Your task to perform on an android device: toggle show notifications on the lock screen Image 0: 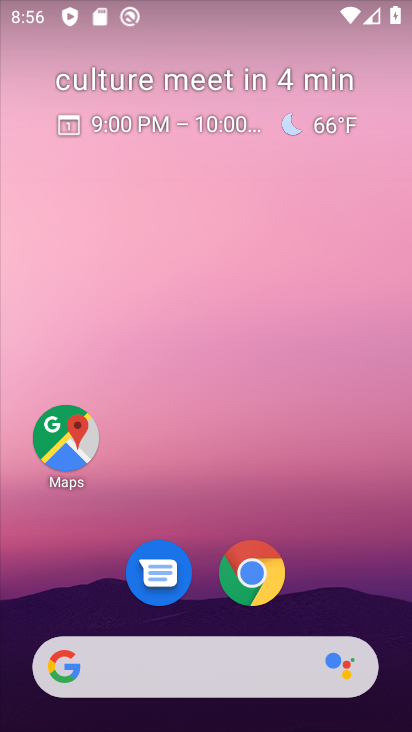
Step 0: drag from (222, 536) to (234, 70)
Your task to perform on an android device: toggle show notifications on the lock screen Image 1: 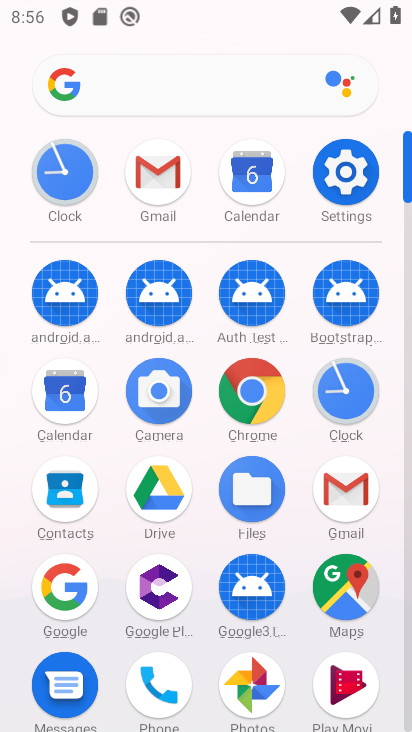
Step 1: click (350, 194)
Your task to perform on an android device: toggle show notifications on the lock screen Image 2: 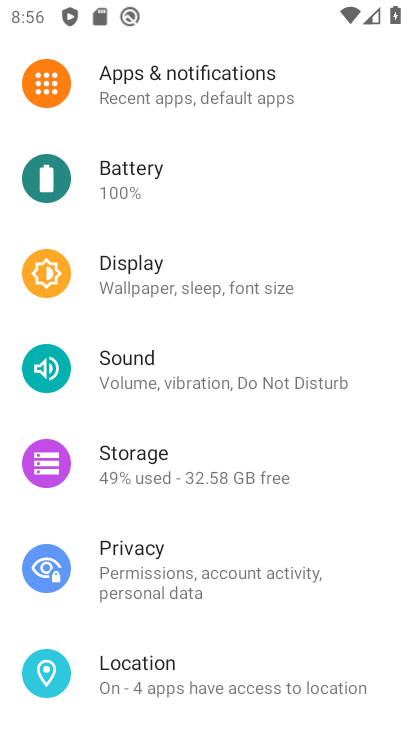
Step 2: click (194, 91)
Your task to perform on an android device: toggle show notifications on the lock screen Image 3: 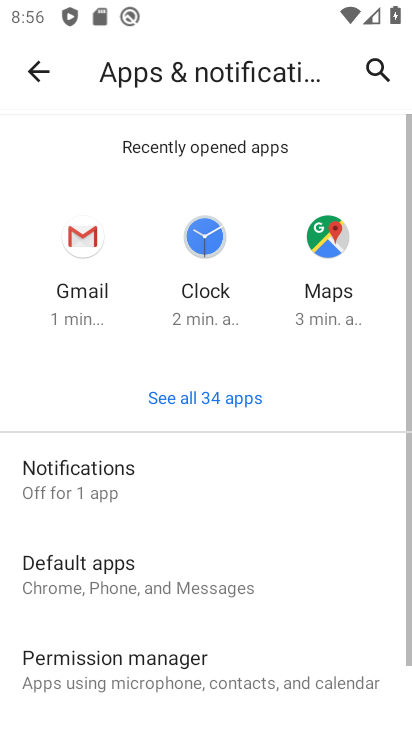
Step 3: click (92, 492)
Your task to perform on an android device: toggle show notifications on the lock screen Image 4: 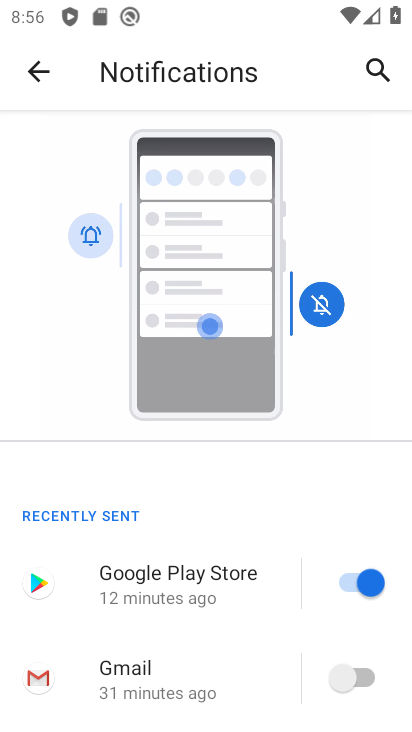
Step 4: drag from (193, 632) to (283, 126)
Your task to perform on an android device: toggle show notifications on the lock screen Image 5: 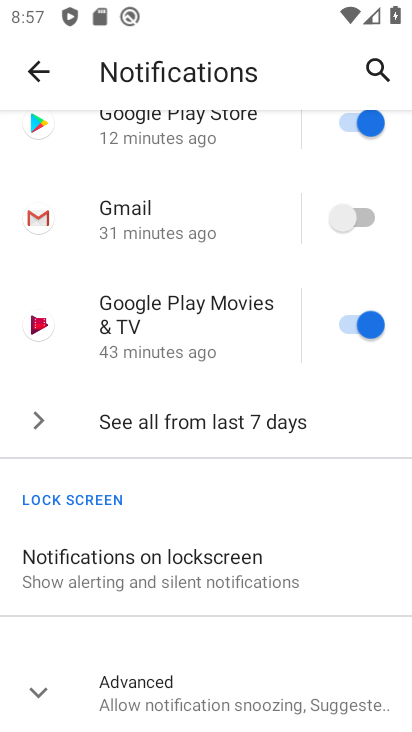
Step 5: click (166, 550)
Your task to perform on an android device: toggle show notifications on the lock screen Image 6: 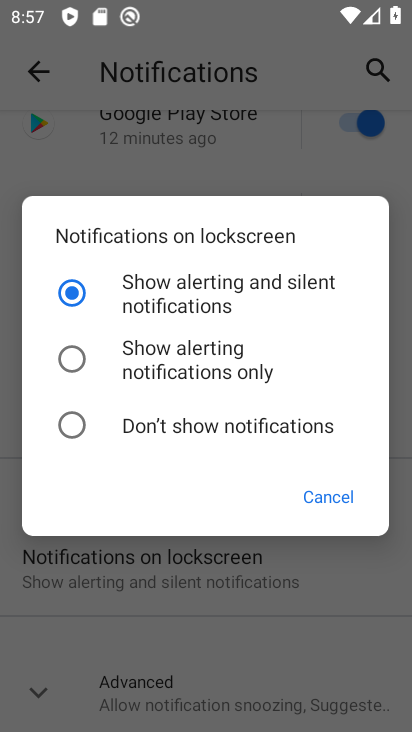
Step 6: task complete